Your task to perform on an android device: turn off improve location accuracy Image 0: 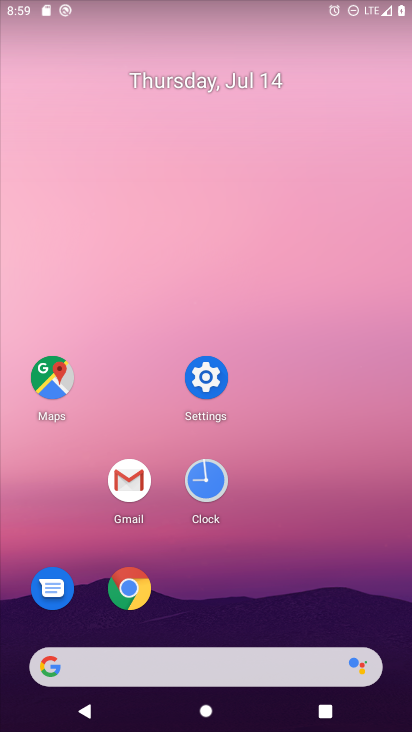
Step 0: click (195, 369)
Your task to perform on an android device: turn off improve location accuracy Image 1: 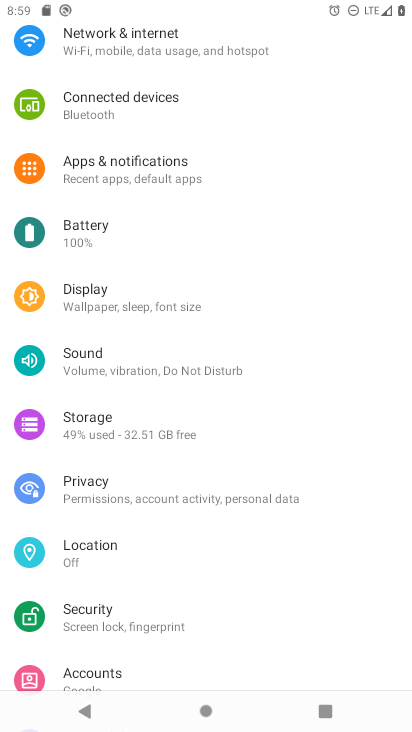
Step 1: click (102, 551)
Your task to perform on an android device: turn off improve location accuracy Image 2: 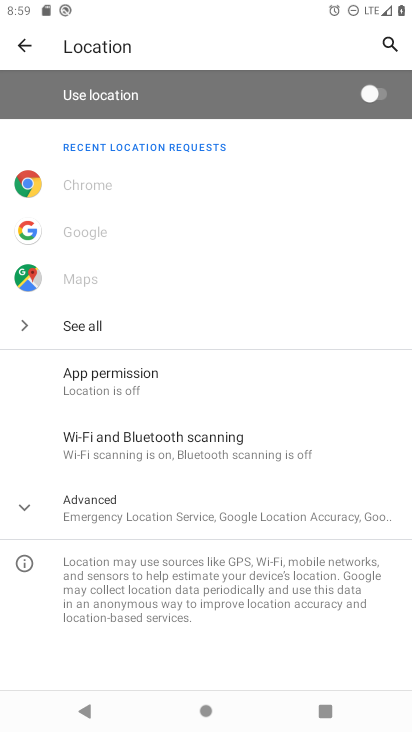
Step 2: click (33, 506)
Your task to perform on an android device: turn off improve location accuracy Image 3: 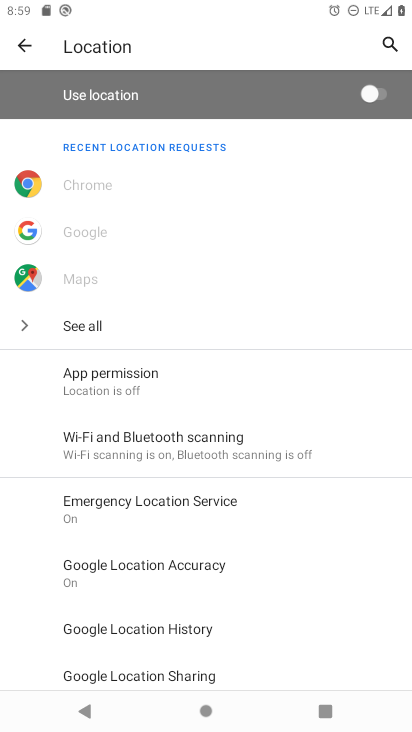
Step 3: click (33, 506)
Your task to perform on an android device: turn off improve location accuracy Image 4: 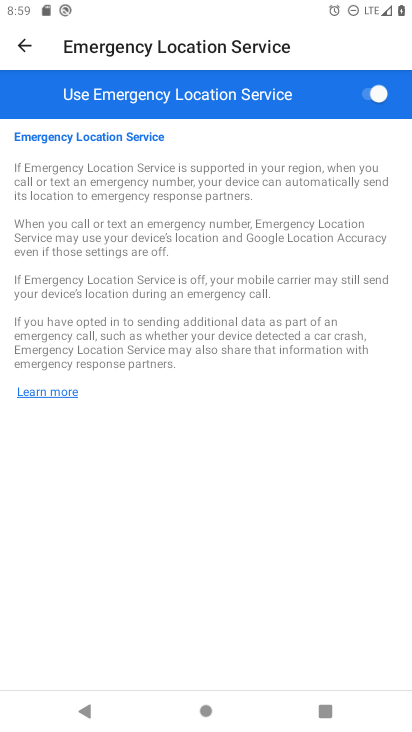
Step 4: click (22, 44)
Your task to perform on an android device: turn off improve location accuracy Image 5: 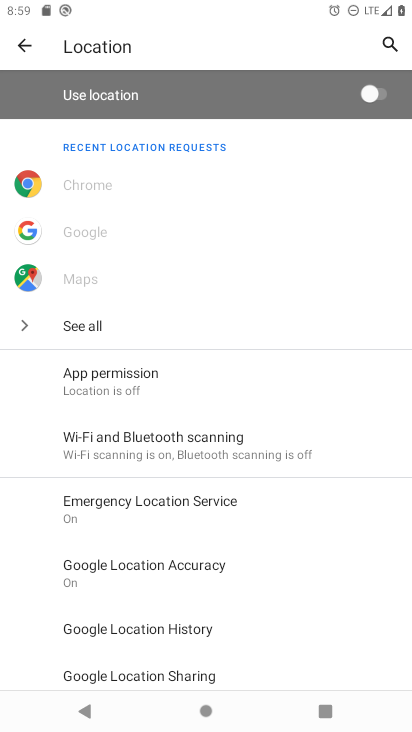
Step 5: click (142, 575)
Your task to perform on an android device: turn off improve location accuracy Image 6: 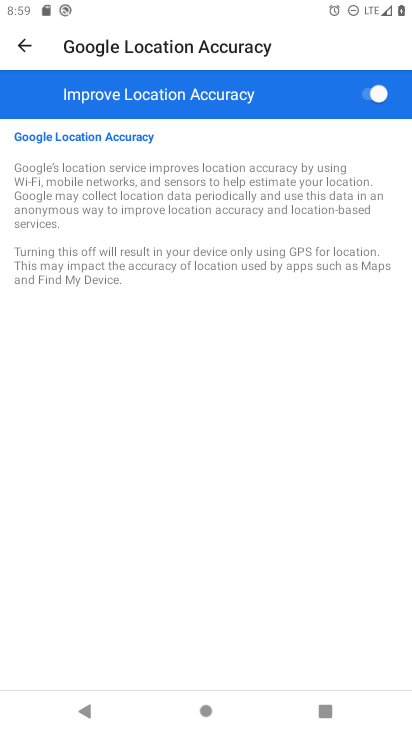
Step 6: click (365, 89)
Your task to perform on an android device: turn off improve location accuracy Image 7: 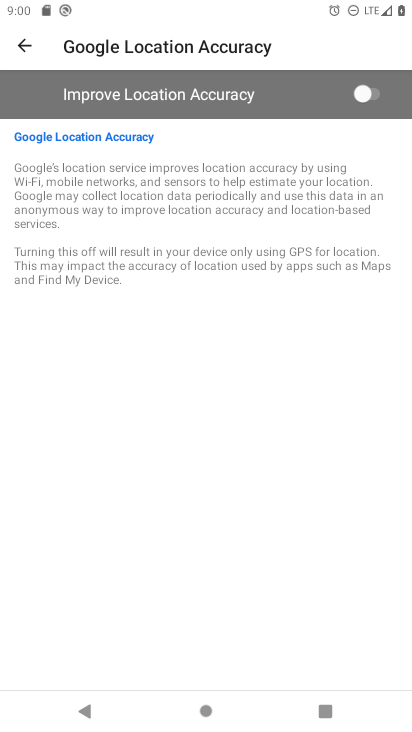
Step 7: task complete